Your task to perform on an android device: open chrome and create a bookmark for the current page Image 0: 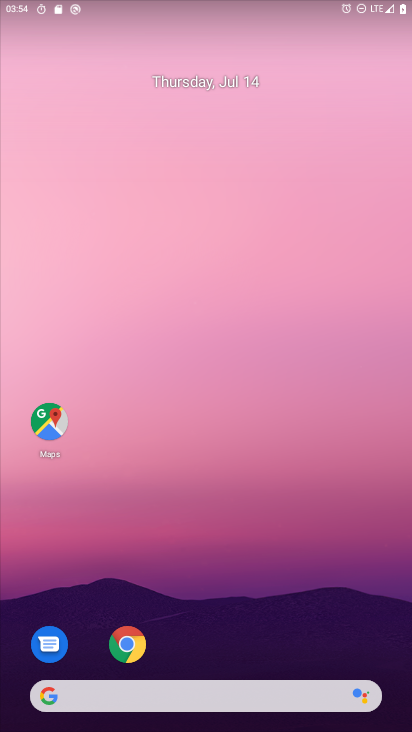
Step 0: drag from (244, 616) to (210, 14)
Your task to perform on an android device: open chrome and create a bookmark for the current page Image 1: 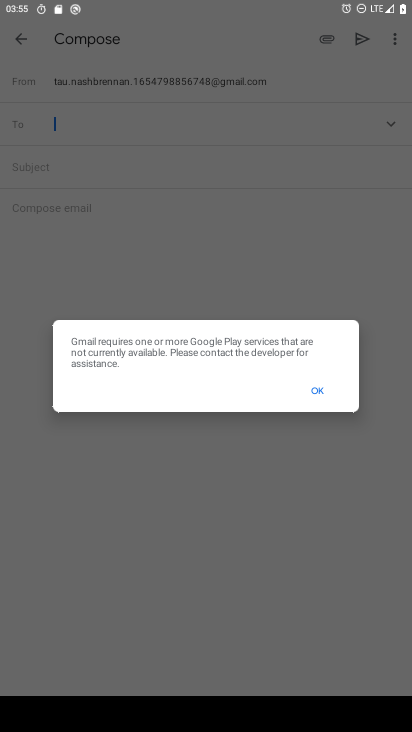
Step 1: press home button
Your task to perform on an android device: open chrome and create a bookmark for the current page Image 2: 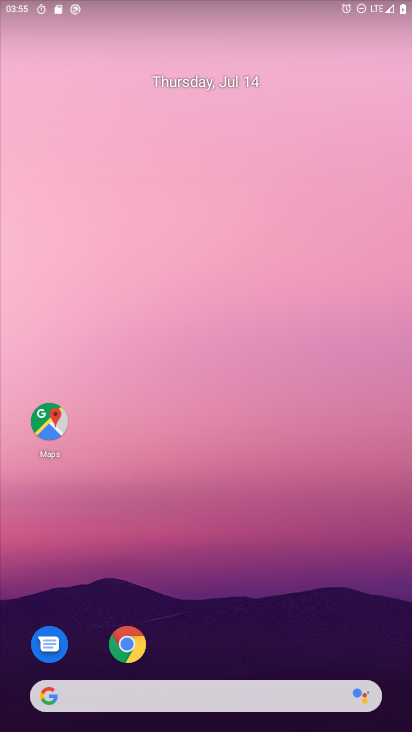
Step 2: drag from (184, 644) to (219, 118)
Your task to perform on an android device: open chrome and create a bookmark for the current page Image 3: 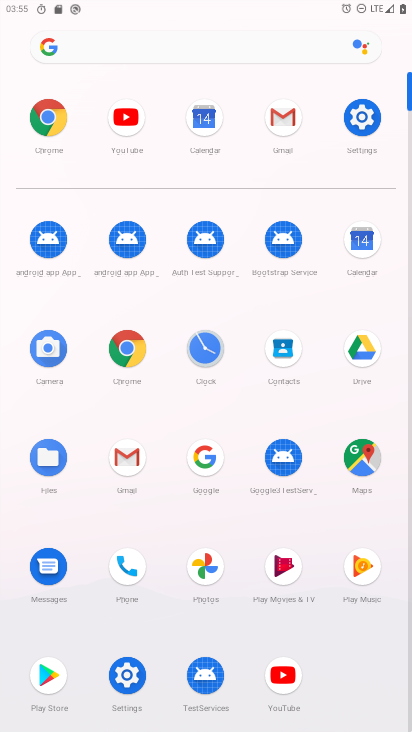
Step 3: click (127, 349)
Your task to perform on an android device: open chrome and create a bookmark for the current page Image 4: 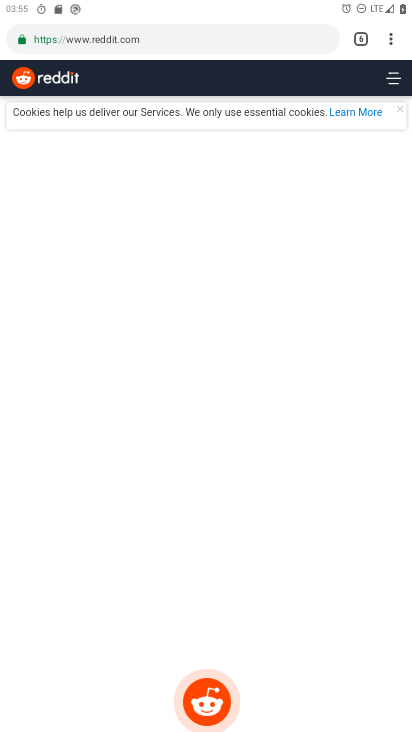
Step 4: task complete